Your task to perform on an android device: Go to ESPN.com Image 0: 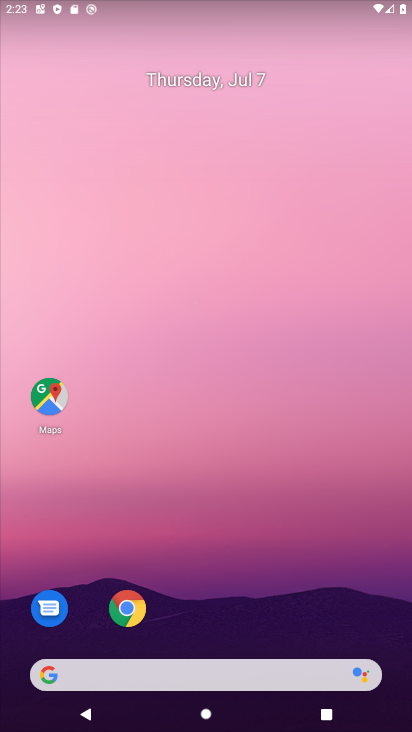
Step 0: click (392, 674)
Your task to perform on an android device: Go to ESPN.com Image 1: 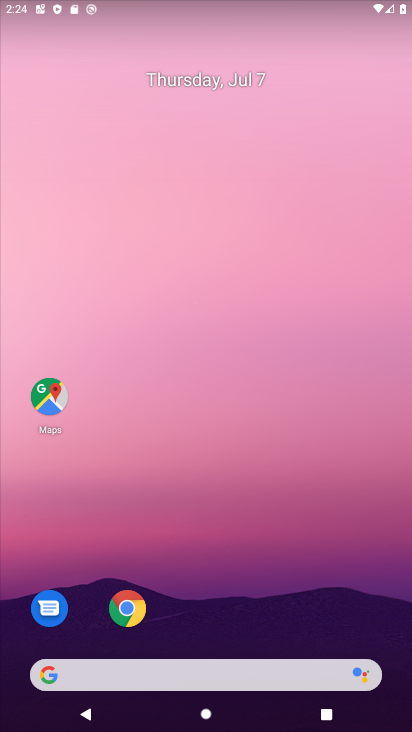
Step 1: click (129, 612)
Your task to perform on an android device: Go to ESPN.com Image 2: 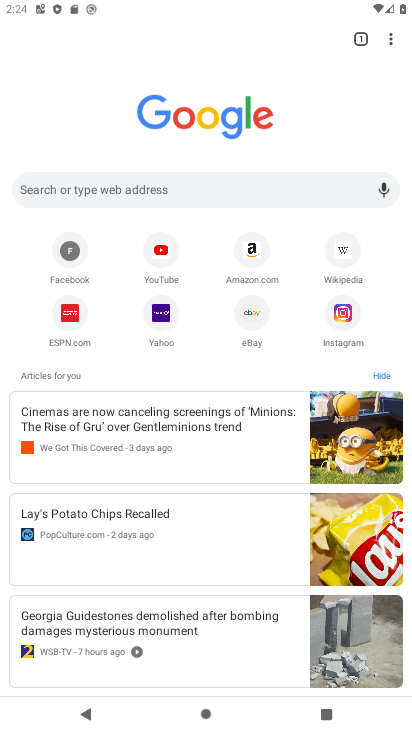
Step 2: click (117, 190)
Your task to perform on an android device: Go to ESPN.com Image 3: 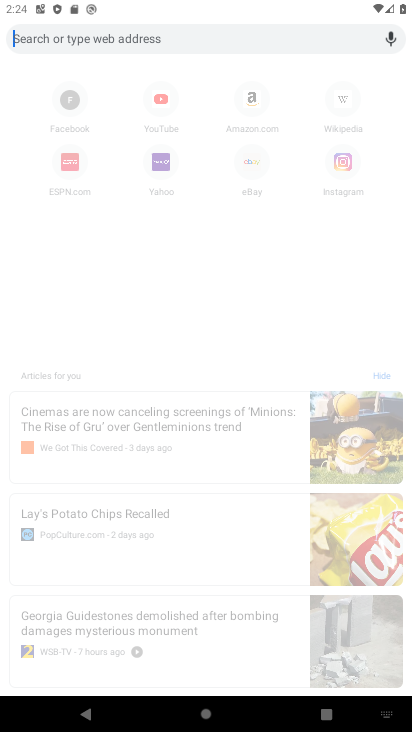
Step 3: type "ESPN.com"
Your task to perform on an android device: Go to ESPN.com Image 4: 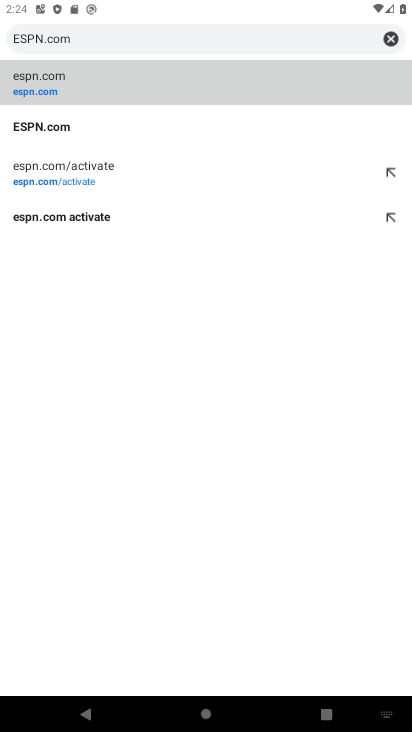
Step 4: click (64, 99)
Your task to perform on an android device: Go to ESPN.com Image 5: 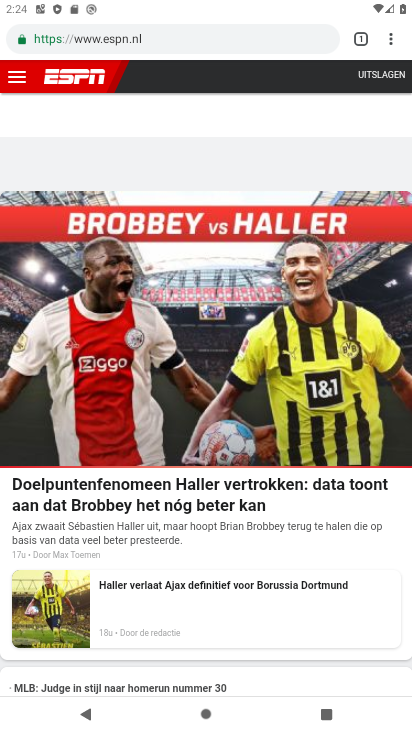
Step 5: task complete